Your task to perform on an android device: change text size in settings app Image 0: 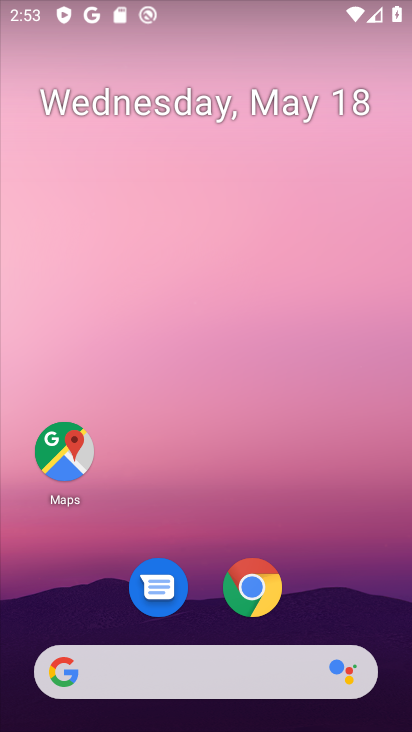
Step 0: drag from (225, 698) to (228, 152)
Your task to perform on an android device: change text size in settings app Image 1: 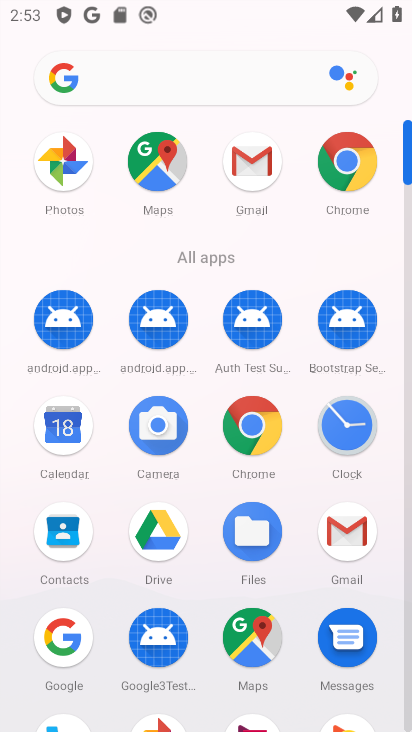
Step 1: drag from (182, 478) to (182, 153)
Your task to perform on an android device: change text size in settings app Image 2: 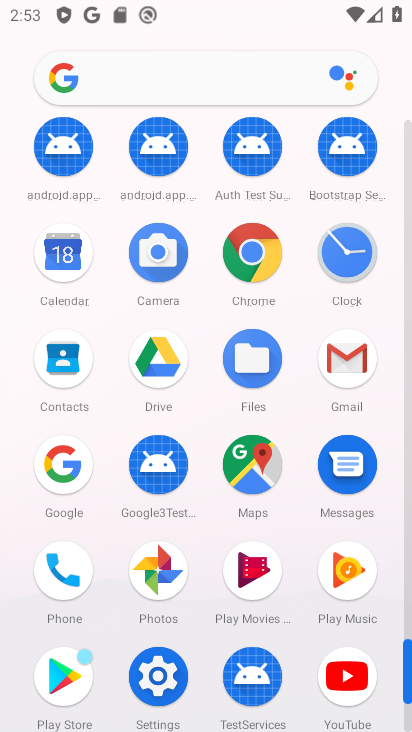
Step 2: click (159, 683)
Your task to perform on an android device: change text size in settings app Image 3: 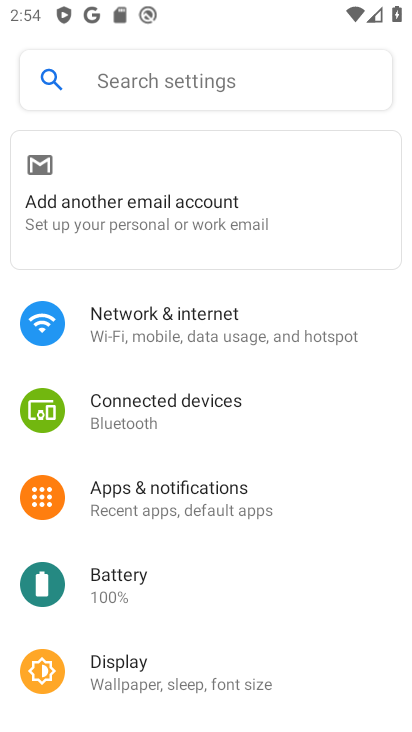
Step 3: drag from (189, 594) to (196, 499)
Your task to perform on an android device: change text size in settings app Image 4: 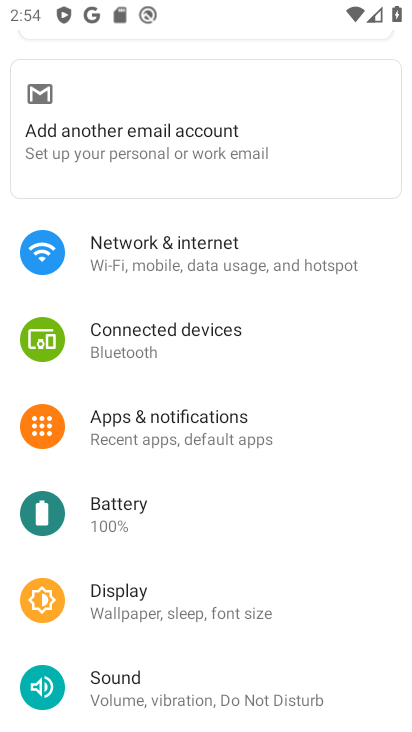
Step 4: drag from (158, 529) to (159, 396)
Your task to perform on an android device: change text size in settings app Image 5: 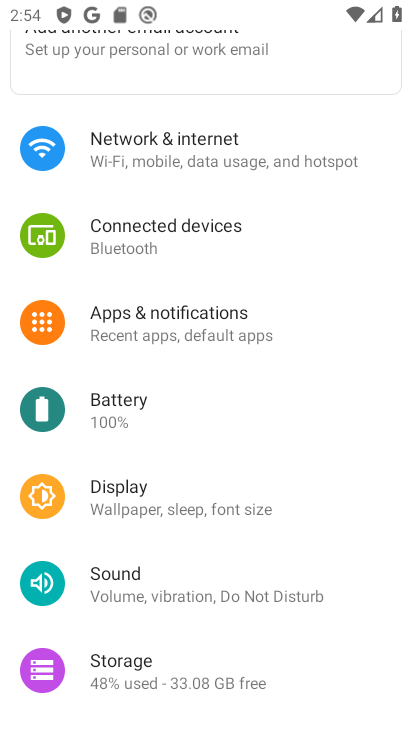
Step 5: click (143, 483)
Your task to perform on an android device: change text size in settings app Image 6: 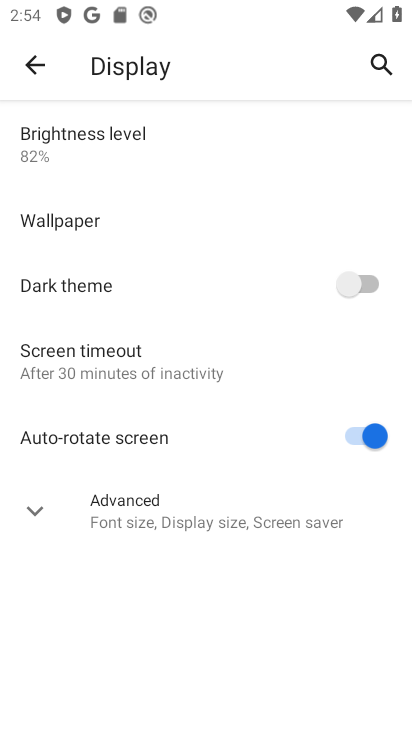
Step 6: click (139, 526)
Your task to perform on an android device: change text size in settings app Image 7: 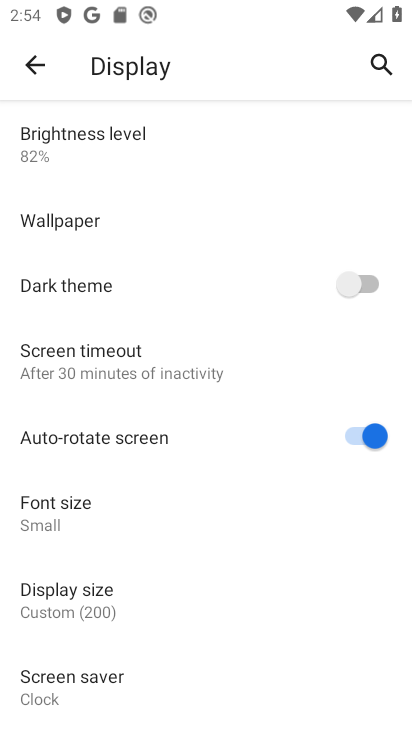
Step 7: drag from (151, 535) to (195, 377)
Your task to perform on an android device: change text size in settings app Image 8: 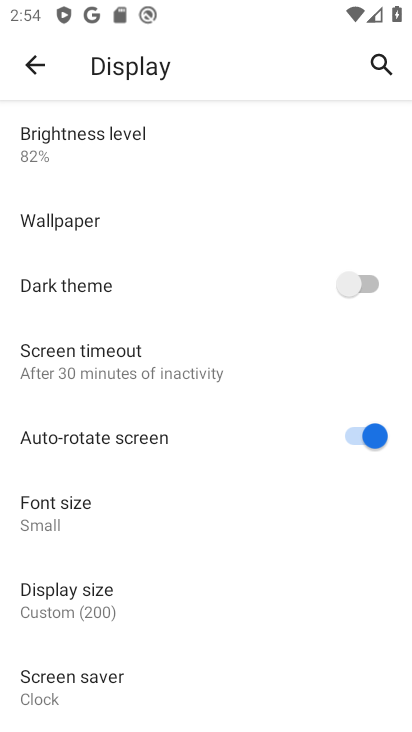
Step 8: click (141, 519)
Your task to perform on an android device: change text size in settings app Image 9: 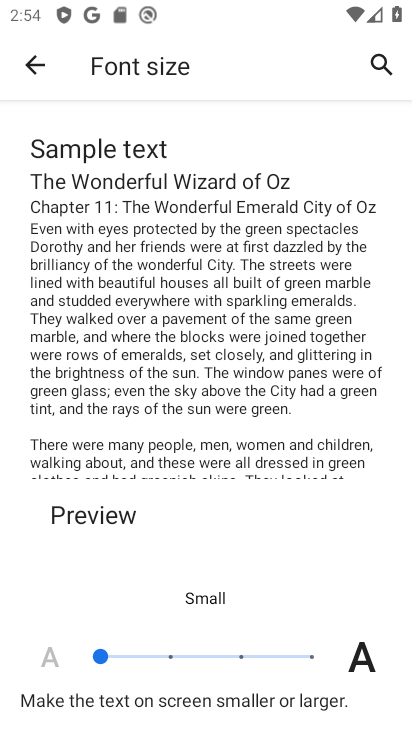
Step 9: click (173, 650)
Your task to perform on an android device: change text size in settings app Image 10: 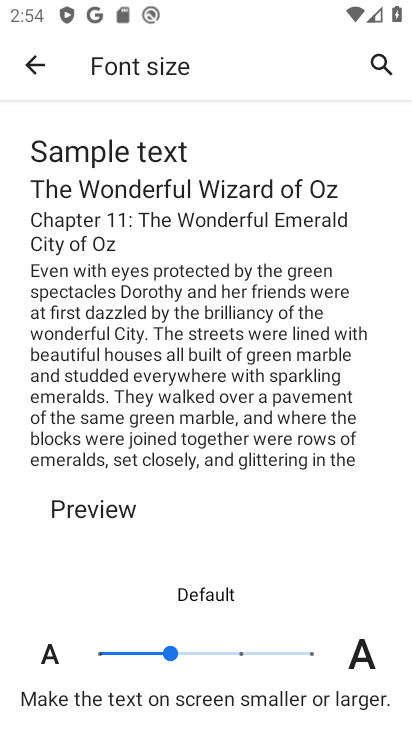
Step 10: task complete